Your task to perform on an android device: Open battery settings Image 0: 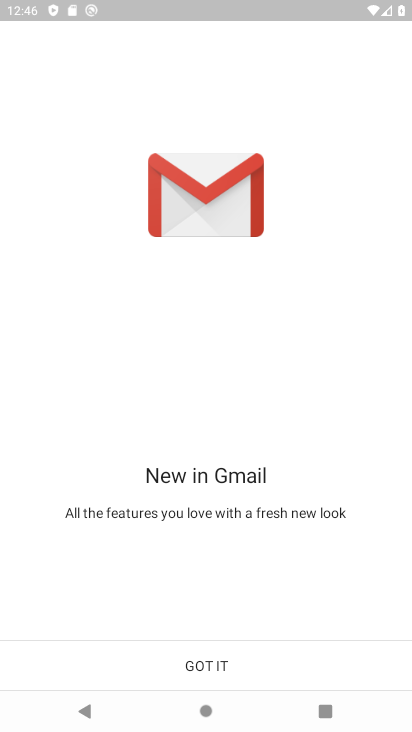
Step 0: press home button
Your task to perform on an android device: Open battery settings Image 1: 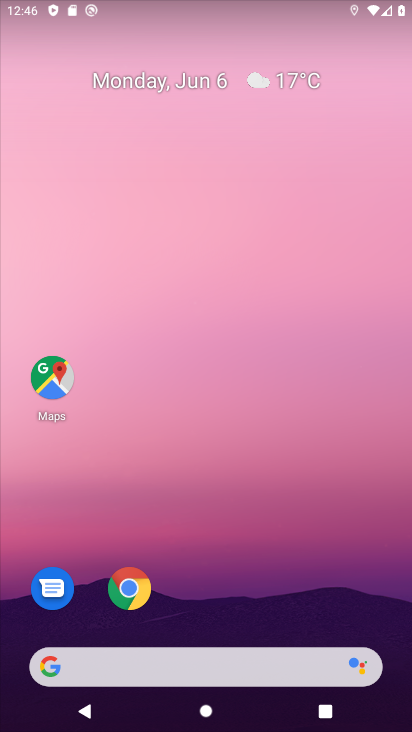
Step 1: drag from (151, 724) to (114, 45)
Your task to perform on an android device: Open battery settings Image 2: 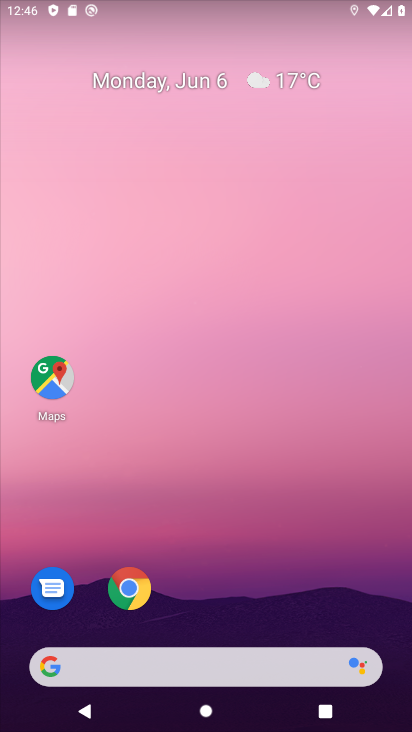
Step 2: drag from (151, 722) to (146, 26)
Your task to perform on an android device: Open battery settings Image 3: 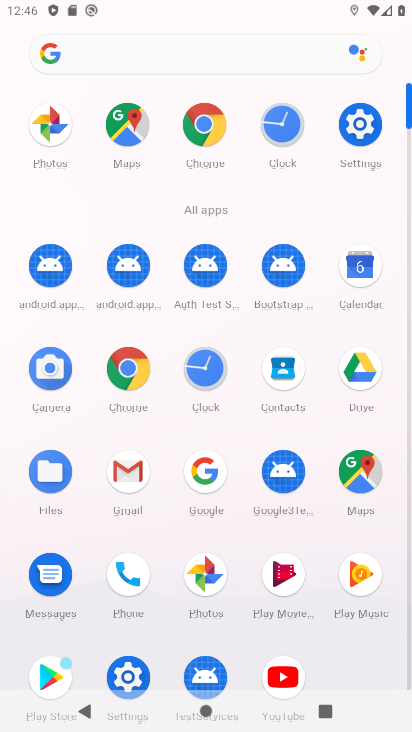
Step 3: click (358, 128)
Your task to perform on an android device: Open battery settings Image 4: 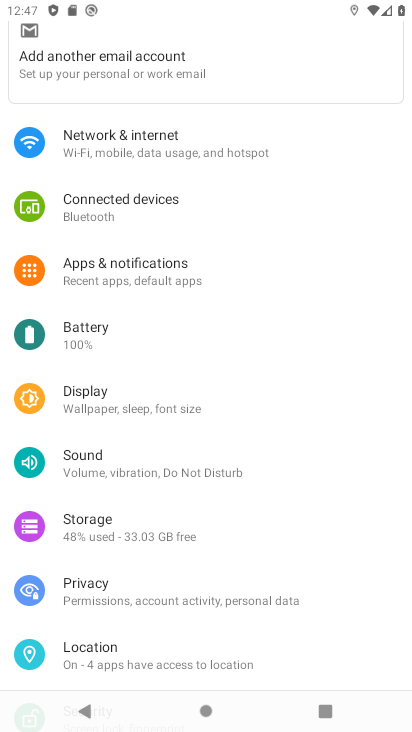
Step 4: click (94, 337)
Your task to perform on an android device: Open battery settings Image 5: 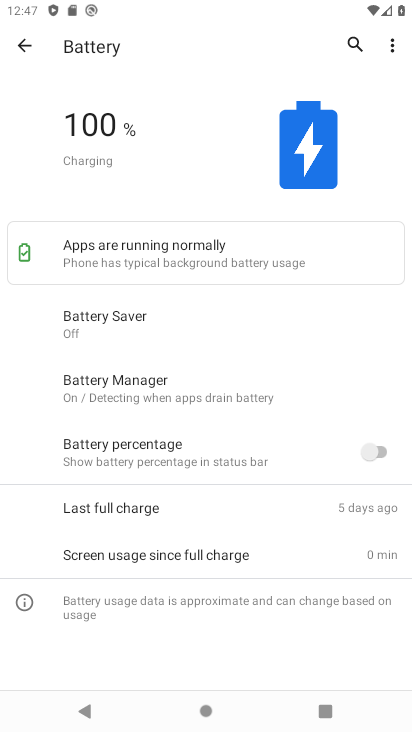
Step 5: click (391, 47)
Your task to perform on an android device: Open battery settings Image 6: 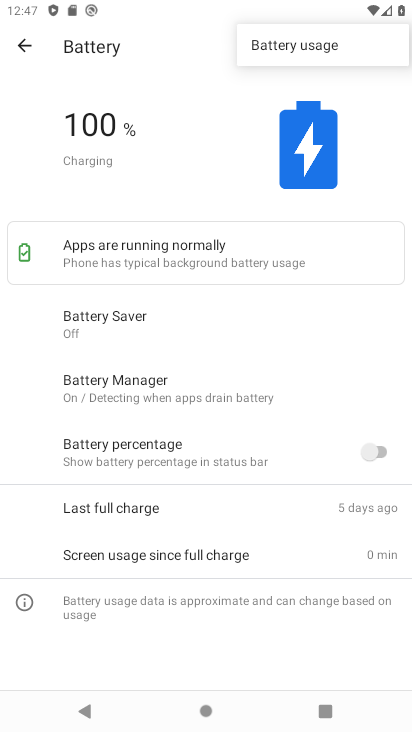
Step 6: click (233, 643)
Your task to perform on an android device: Open battery settings Image 7: 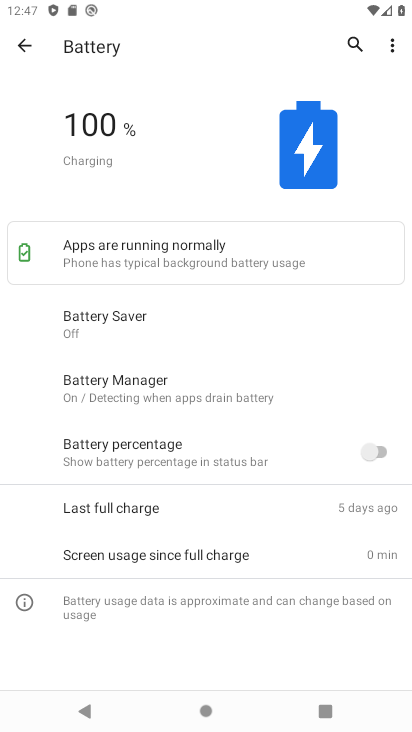
Step 7: task complete